Your task to perform on an android device: manage bookmarks in the chrome app Image 0: 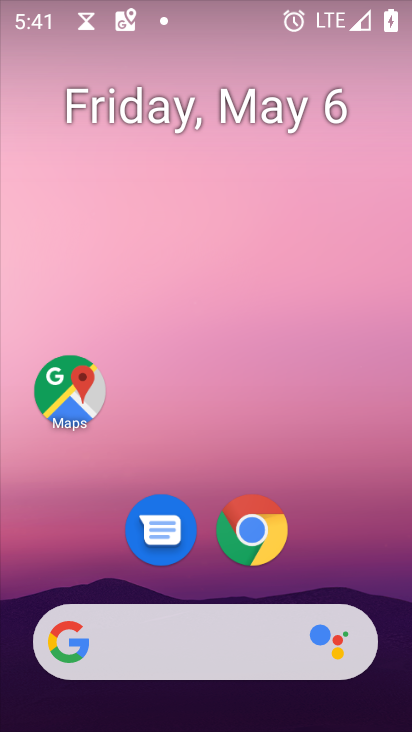
Step 0: click (252, 526)
Your task to perform on an android device: manage bookmarks in the chrome app Image 1: 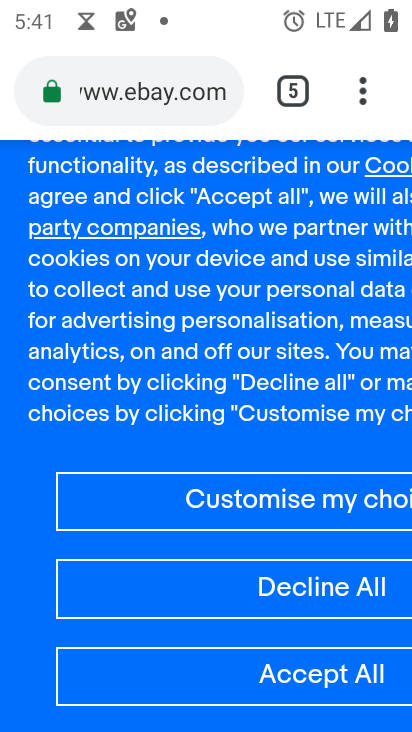
Step 1: click (368, 90)
Your task to perform on an android device: manage bookmarks in the chrome app Image 2: 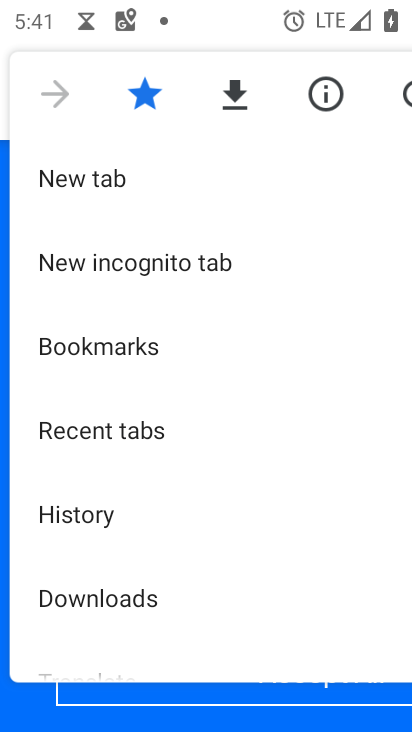
Step 2: click (158, 356)
Your task to perform on an android device: manage bookmarks in the chrome app Image 3: 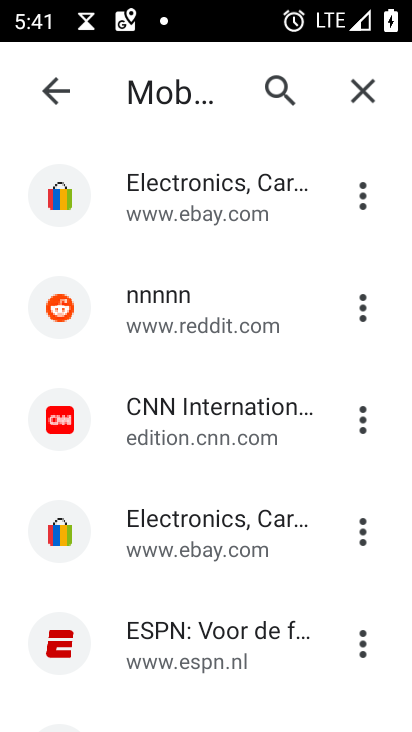
Step 3: click (364, 304)
Your task to perform on an android device: manage bookmarks in the chrome app Image 4: 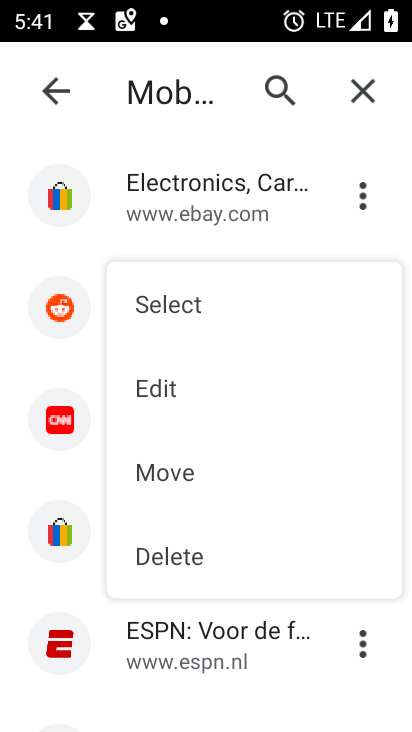
Step 4: click (180, 552)
Your task to perform on an android device: manage bookmarks in the chrome app Image 5: 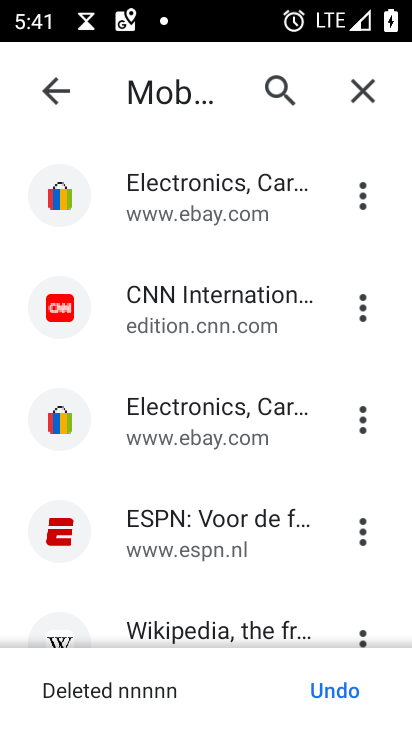
Step 5: task complete